Your task to perform on an android device: What's the weather going to be tomorrow? Image 0: 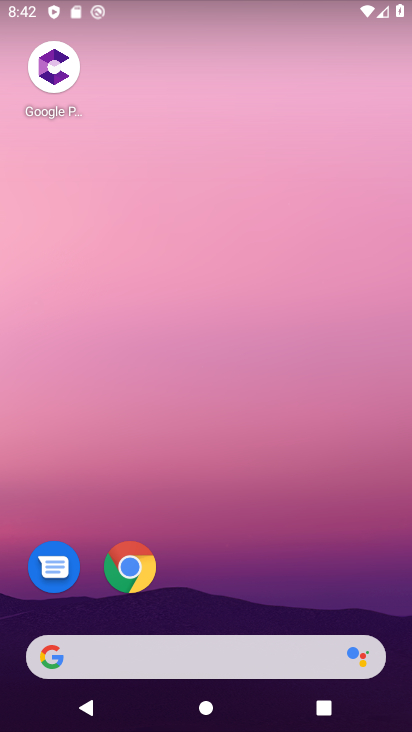
Step 0: drag from (199, 633) to (213, 210)
Your task to perform on an android device: What's the weather going to be tomorrow? Image 1: 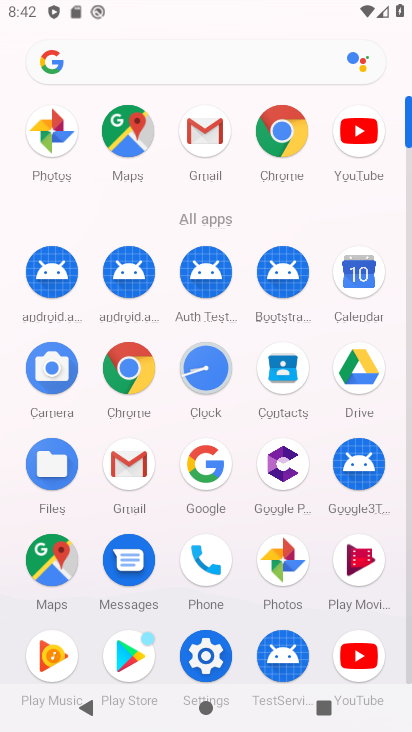
Step 1: click (190, 469)
Your task to perform on an android device: What's the weather going to be tomorrow? Image 2: 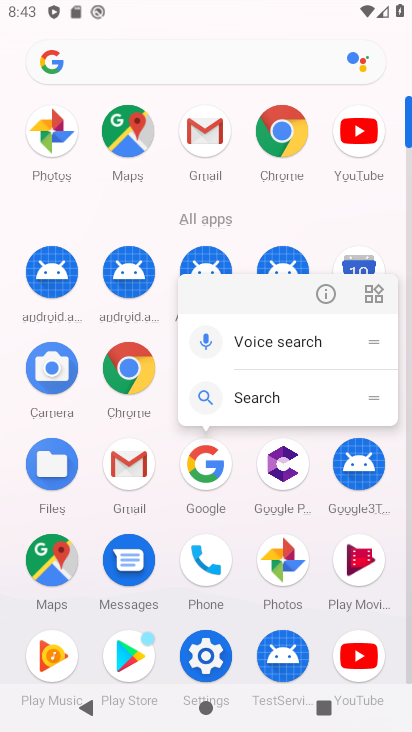
Step 2: click (199, 469)
Your task to perform on an android device: What's the weather going to be tomorrow? Image 3: 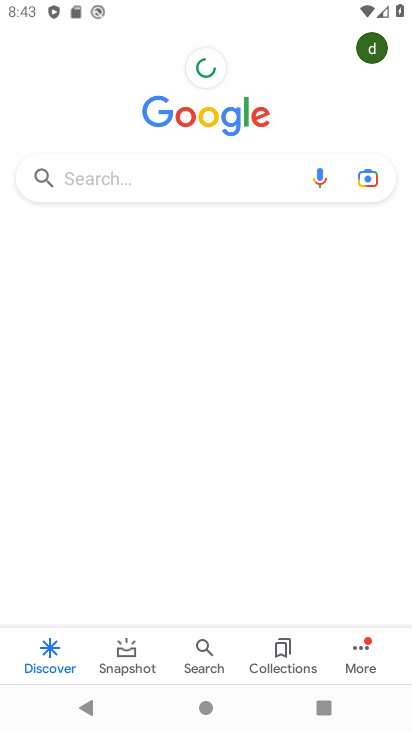
Step 3: click (141, 173)
Your task to perform on an android device: What's the weather going to be tomorrow? Image 4: 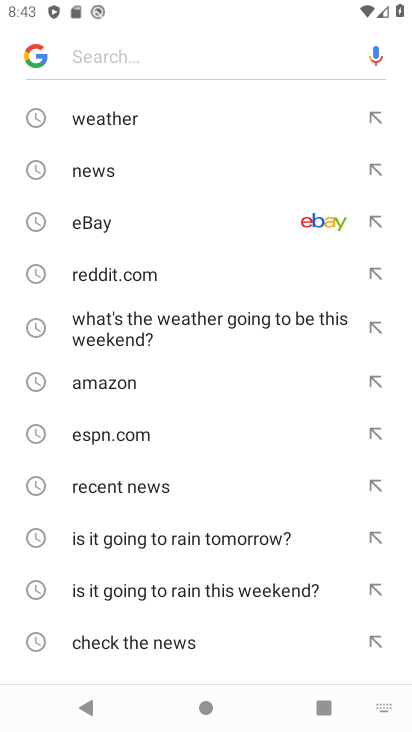
Step 4: drag from (193, 583) to (185, 288)
Your task to perform on an android device: What's the weather going to be tomorrow? Image 5: 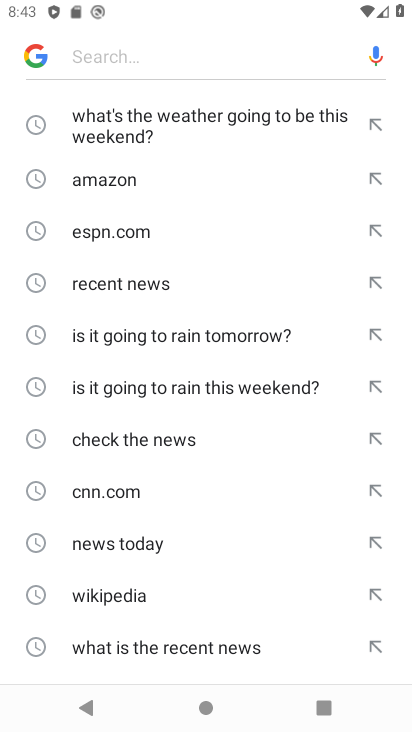
Step 5: click (160, 128)
Your task to perform on an android device: What's the weather going to be tomorrow? Image 6: 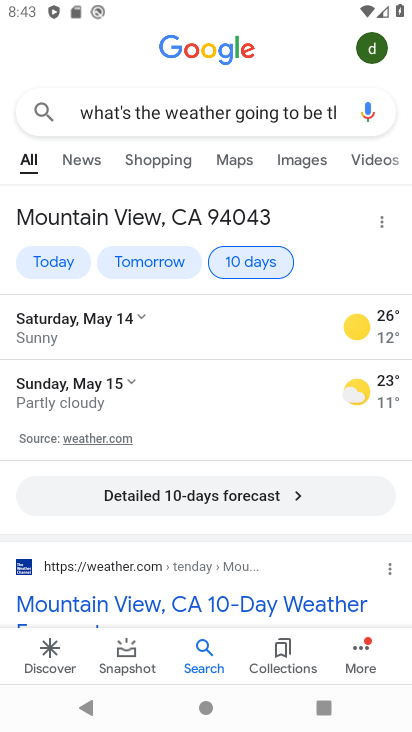
Step 6: click (146, 263)
Your task to perform on an android device: What's the weather going to be tomorrow? Image 7: 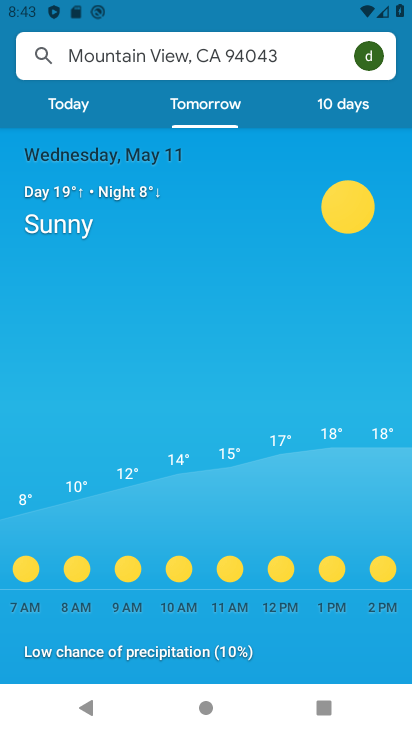
Step 7: task complete